Your task to perform on an android device: create a new album in the google photos Image 0: 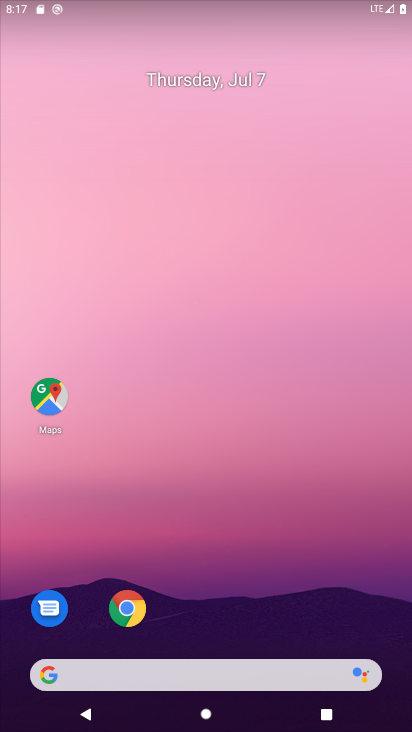
Step 0: drag from (381, 603) to (372, 71)
Your task to perform on an android device: create a new album in the google photos Image 1: 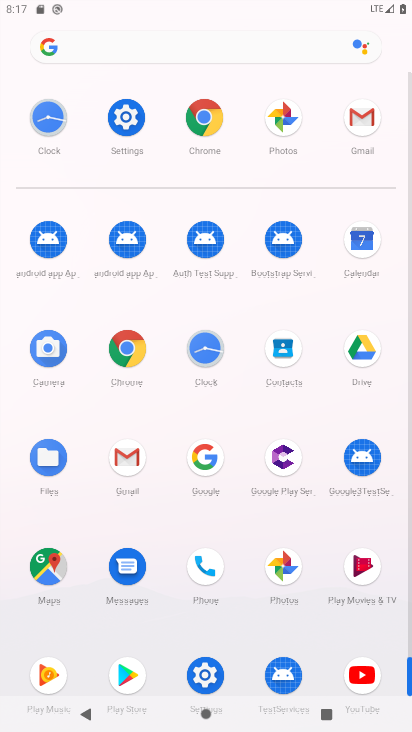
Step 1: click (279, 117)
Your task to perform on an android device: create a new album in the google photos Image 2: 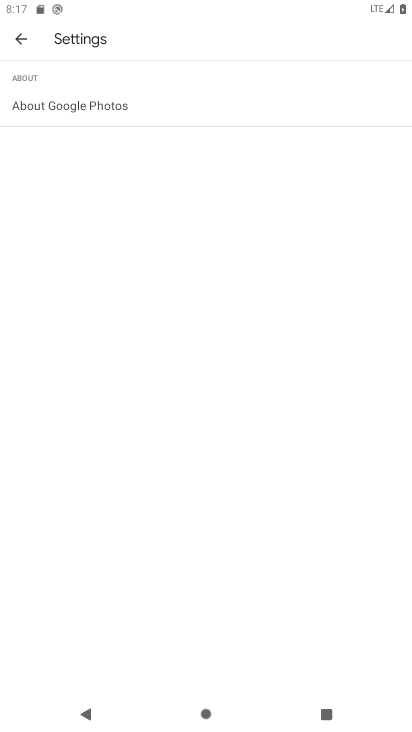
Step 2: press back button
Your task to perform on an android device: create a new album in the google photos Image 3: 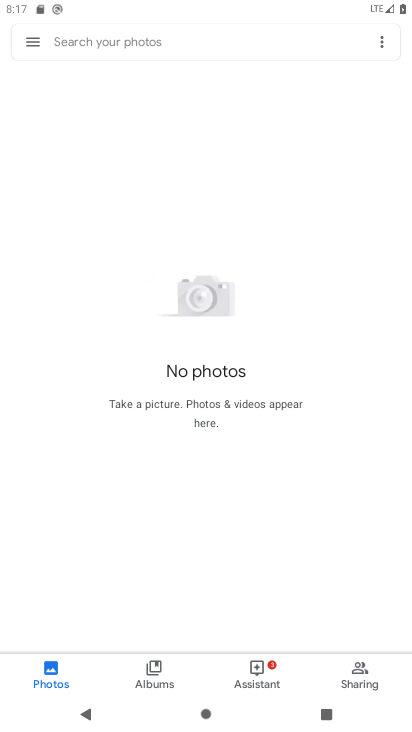
Step 3: click (381, 43)
Your task to perform on an android device: create a new album in the google photos Image 4: 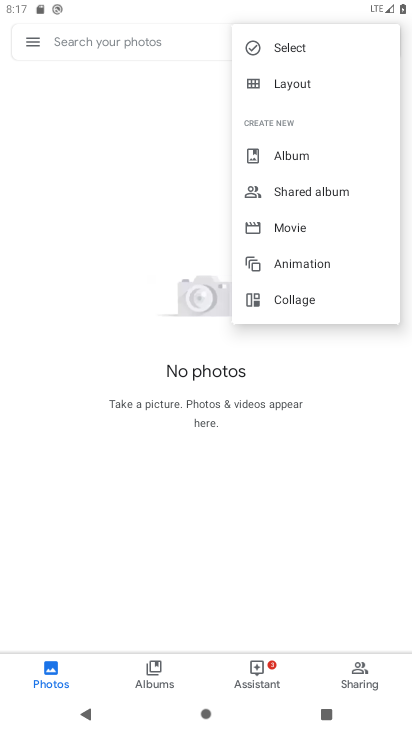
Step 4: click (297, 154)
Your task to perform on an android device: create a new album in the google photos Image 5: 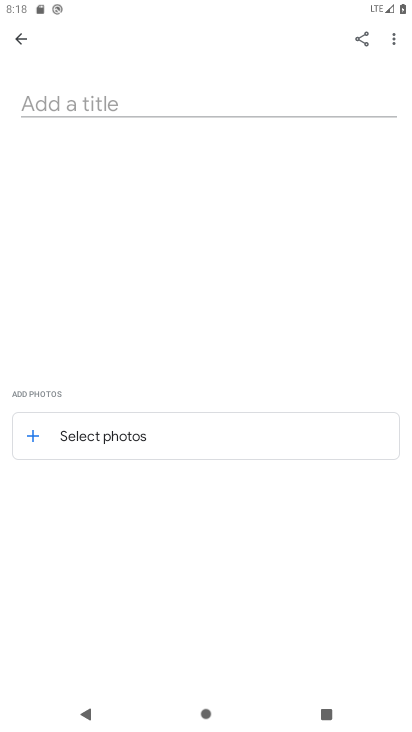
Step 5: click (170, 100)
Your task to perform on an android device: create a new album in the google photos Image 6: 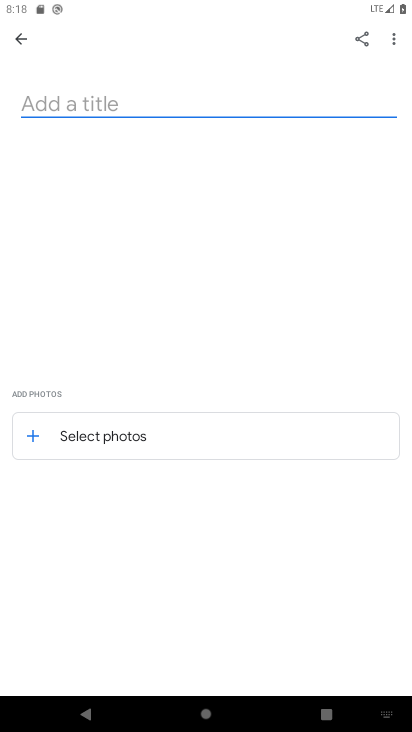
Step 6: type "fav"
Your task to perform on an android device: create a new album in the google photos Image 7: 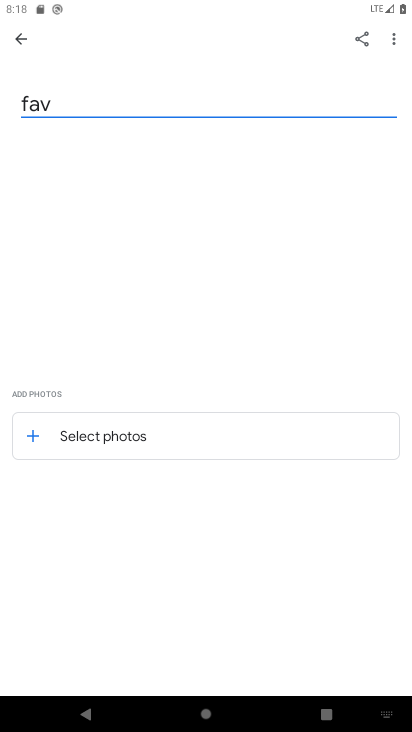
Step 7: click (33, 436)
Your task to perform on an android device: create a new album in the google photos Image 8: 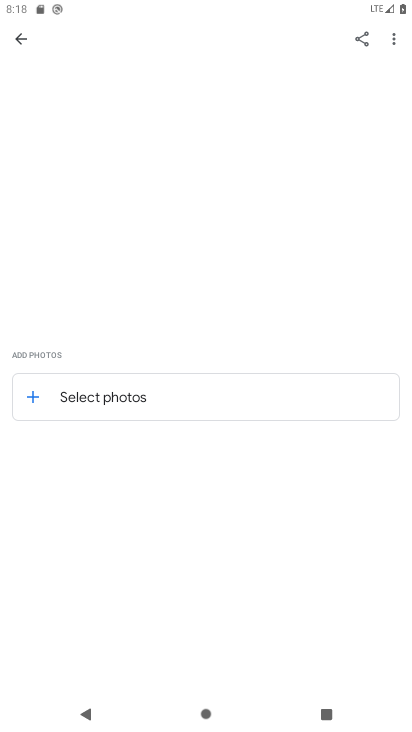
Step 8: click (60, 389)
Your task to perform on an android device: create a new album in the google photos Image 9: 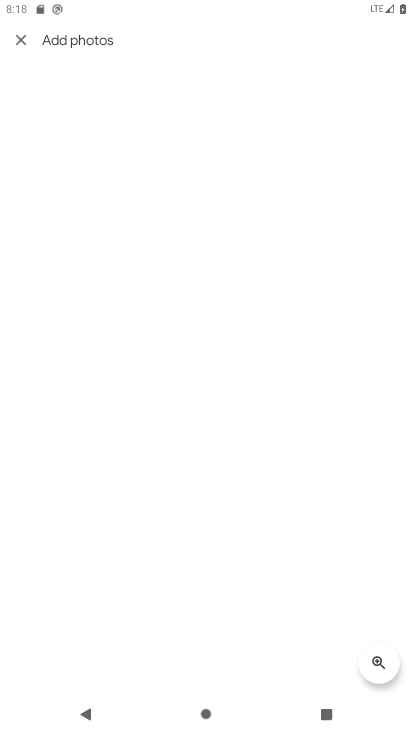
Step 9: task complete